Your task to perform on an android device: empty trash in the gmail app Image 0: 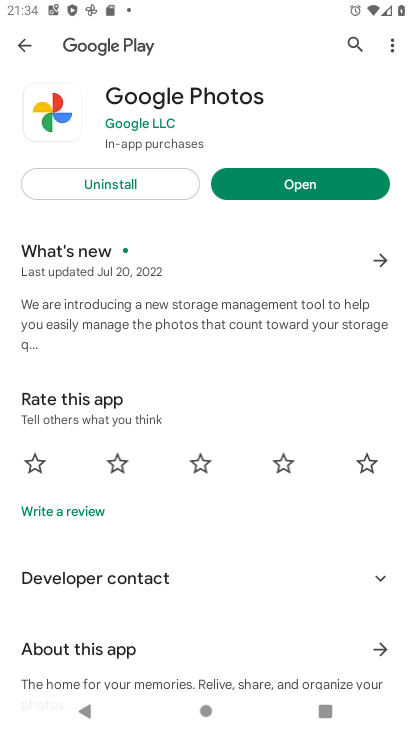
Step 0: press home button
Your task to perform on an android device: empty trash in the gmail app Image 1: 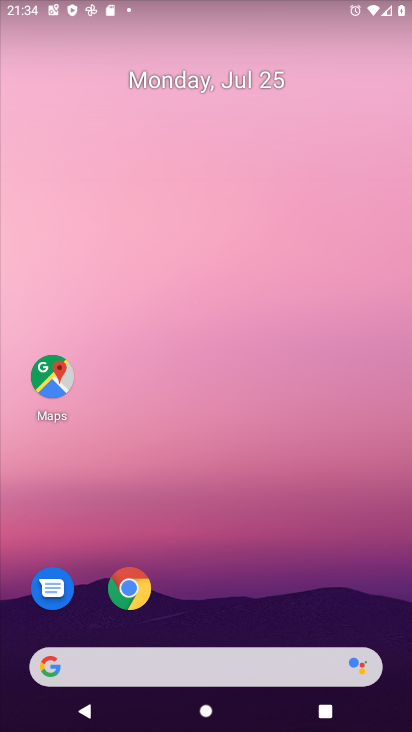
Step 1: drag from (224, 665) to (224, 143)
Your task to perform on an android device: empty trash in the gmail app Image 2: 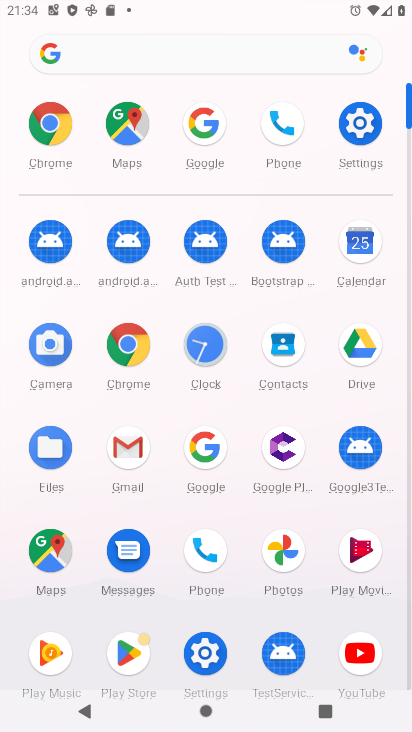
Step 2: click (281, 558)
Your task to perform on an android device: empty trash in the gmail app Image 3: 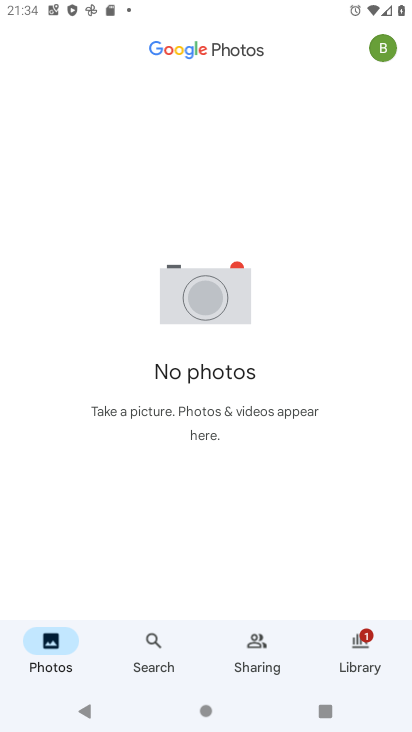
Step 3: click (381, 44)
Your task to perform on an android device: empty trash in the gmail app Image 4: 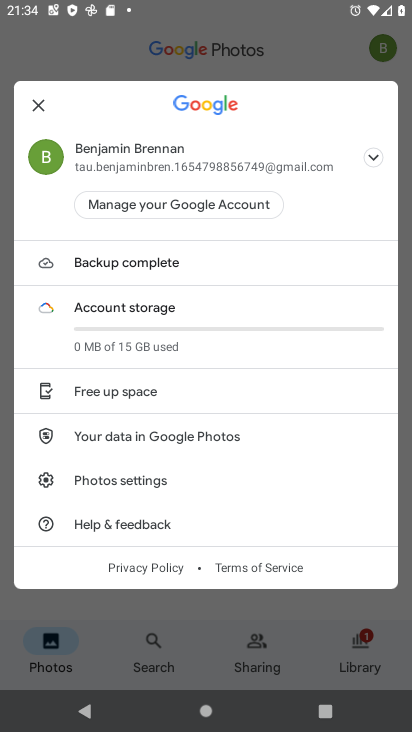
Step 4: click (142, 477)
Your task to perform on an android device: empty trash in the gmail app Image 5: 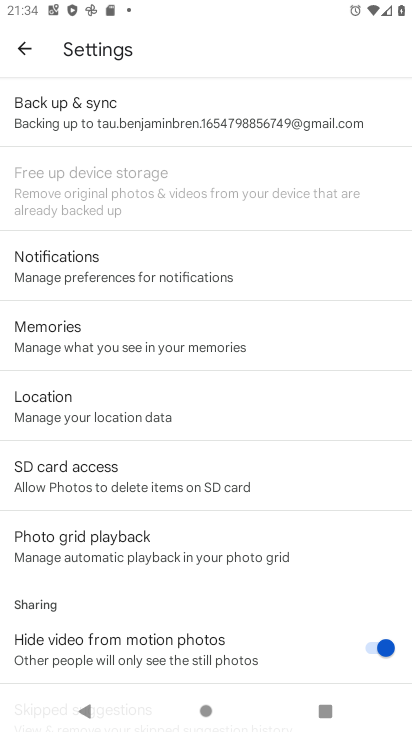
Step 5: task complete